Your task to perform on an android device: check the backup settings in the google photos Image 0: 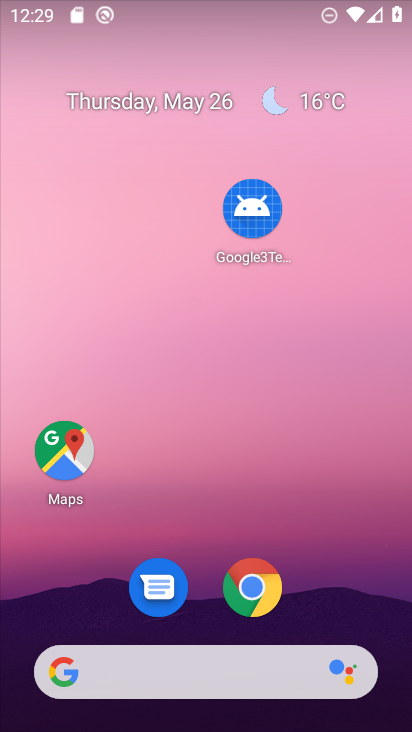
Step 0: drag from (212, 642) to (158, 52)
Your task to perform on an android device: check the backup settings in the google photos Image 1: 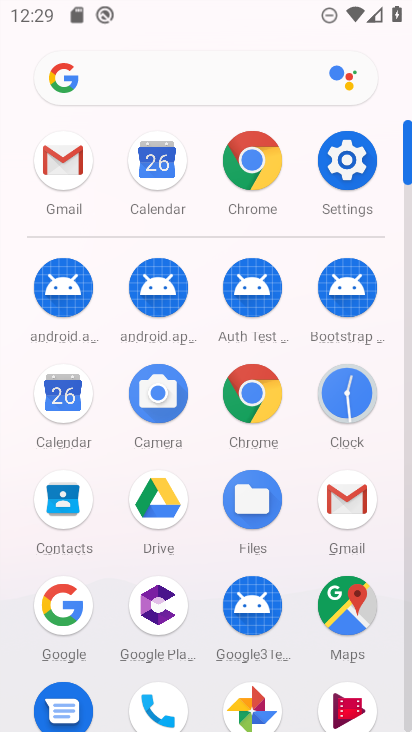
Step 1: click (256, 707)
Your task to perform on an android device: check the backup settings in the google photos Image 2: 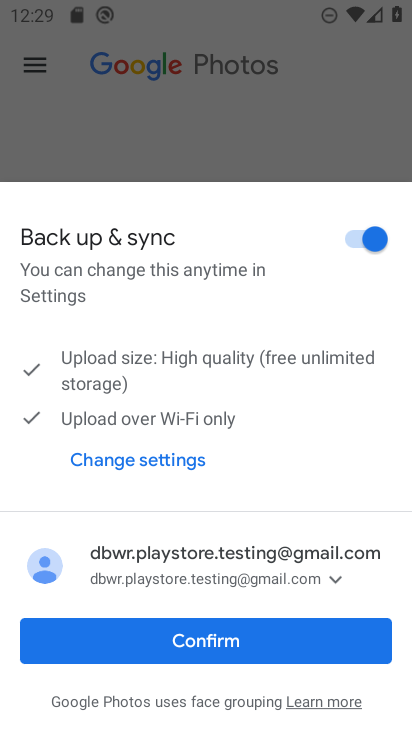
Step 2: press home button
Your task to perform on an android device: check the backup settings in the google photos Image 3: 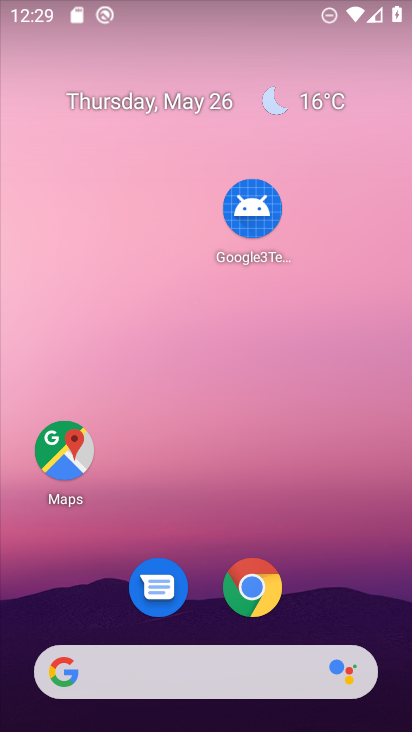
Step 3: drag from (186, 663) to (152, 167)
Your task to perform on an android device: check the backup settings in the google photos Image 4: 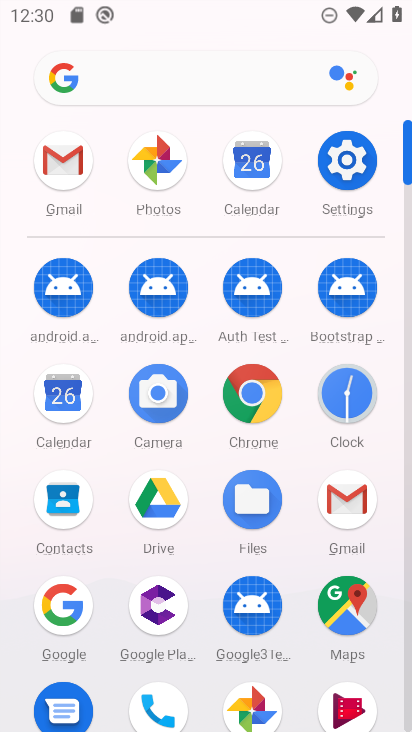
Step 4: click (261, 697)
Your task to perform on an android device: check the backup settings in the google photos Image 5: 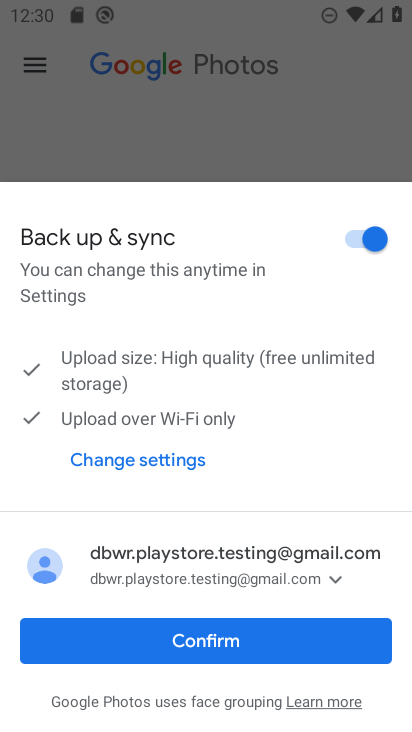
Step 5: click (227, 638)
Your task to perform on an android device: check the backup settings in the google photos Image 6: 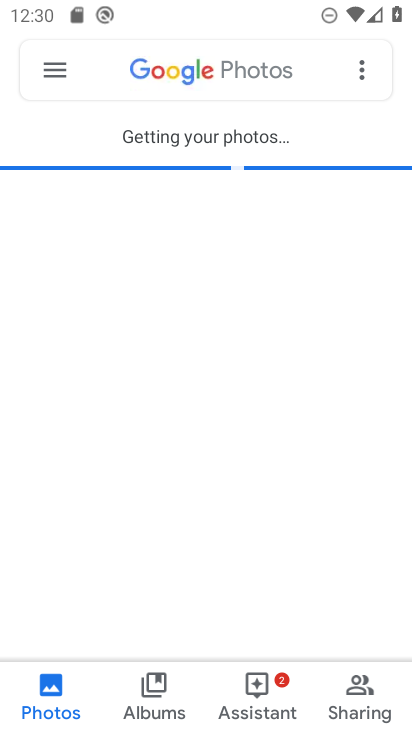
Step 6: click (57, 70)
Your task to perform on an android device: check the backup settings in the google photos Image 7: 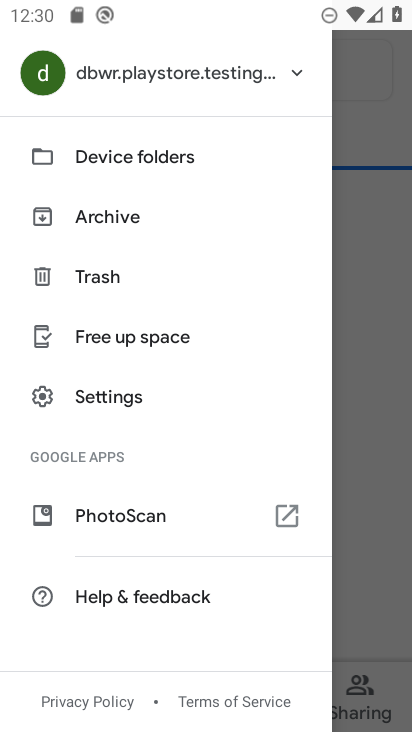
Step 7: click (80, 407)
Your task to perform on an android device: check the backup settings in the google photos Image 8: 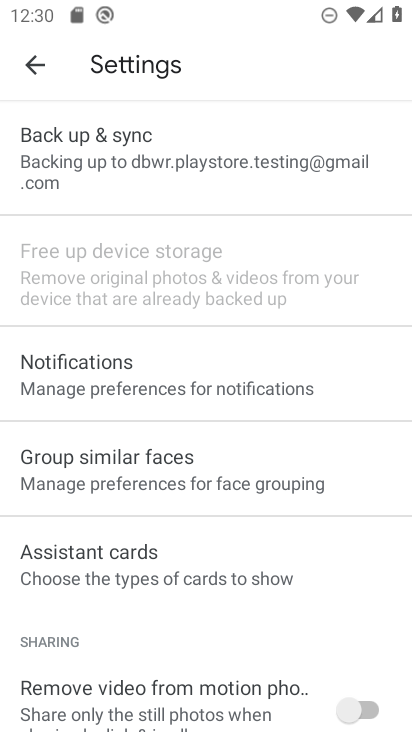
Step 8: click (102, 127)
Your task to perform on an android device: check the backup settings in the google photos Image 9: 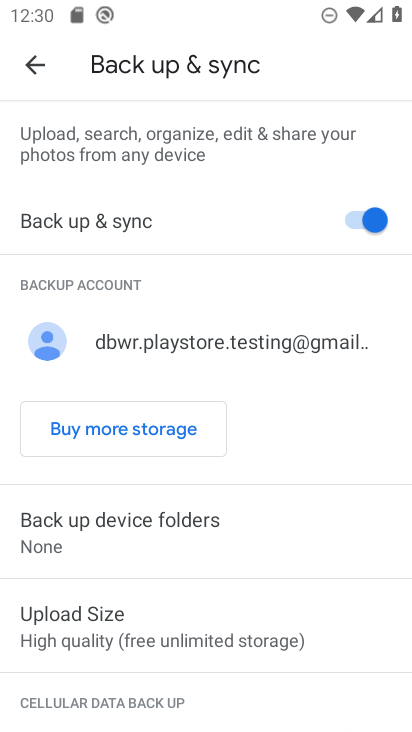
Step 9: task complete